Your task to perform on an android device: turn off translation in the chrome app Image 0: 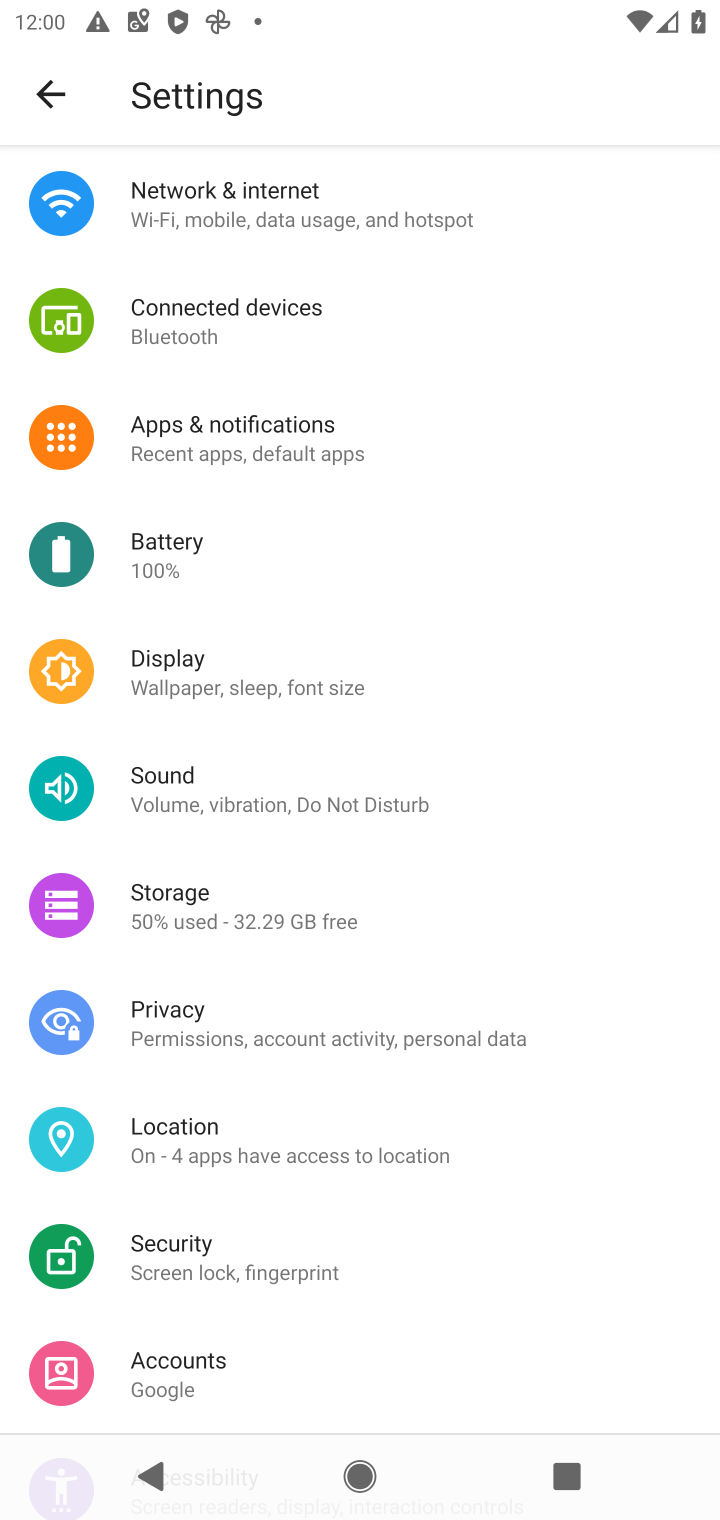
Step 0: press home button
Your task to perform on an android device: turn off translation in the chrome app Image 1: 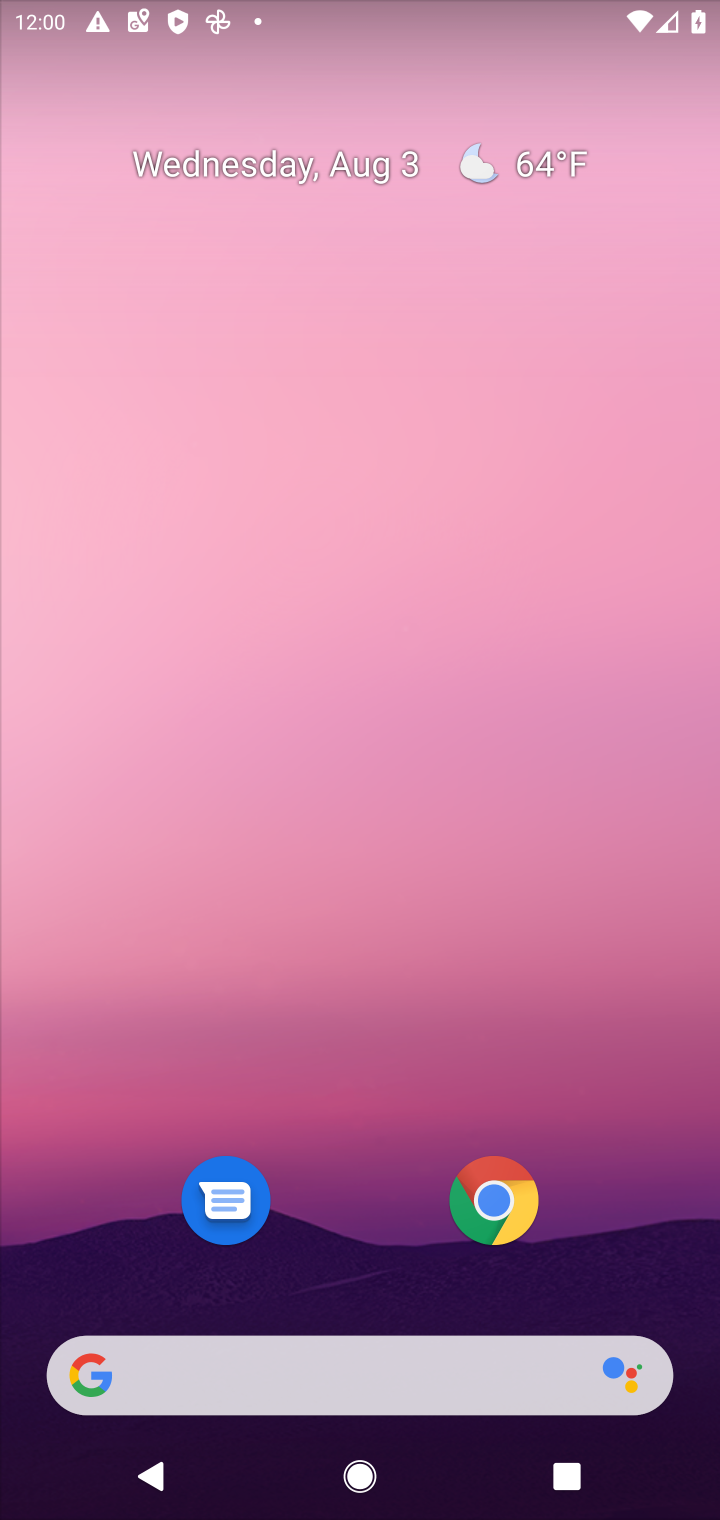
Step 1: click (499, 1206)
Your task to perform on an android device: turn off translation in the chrome app Image 2: 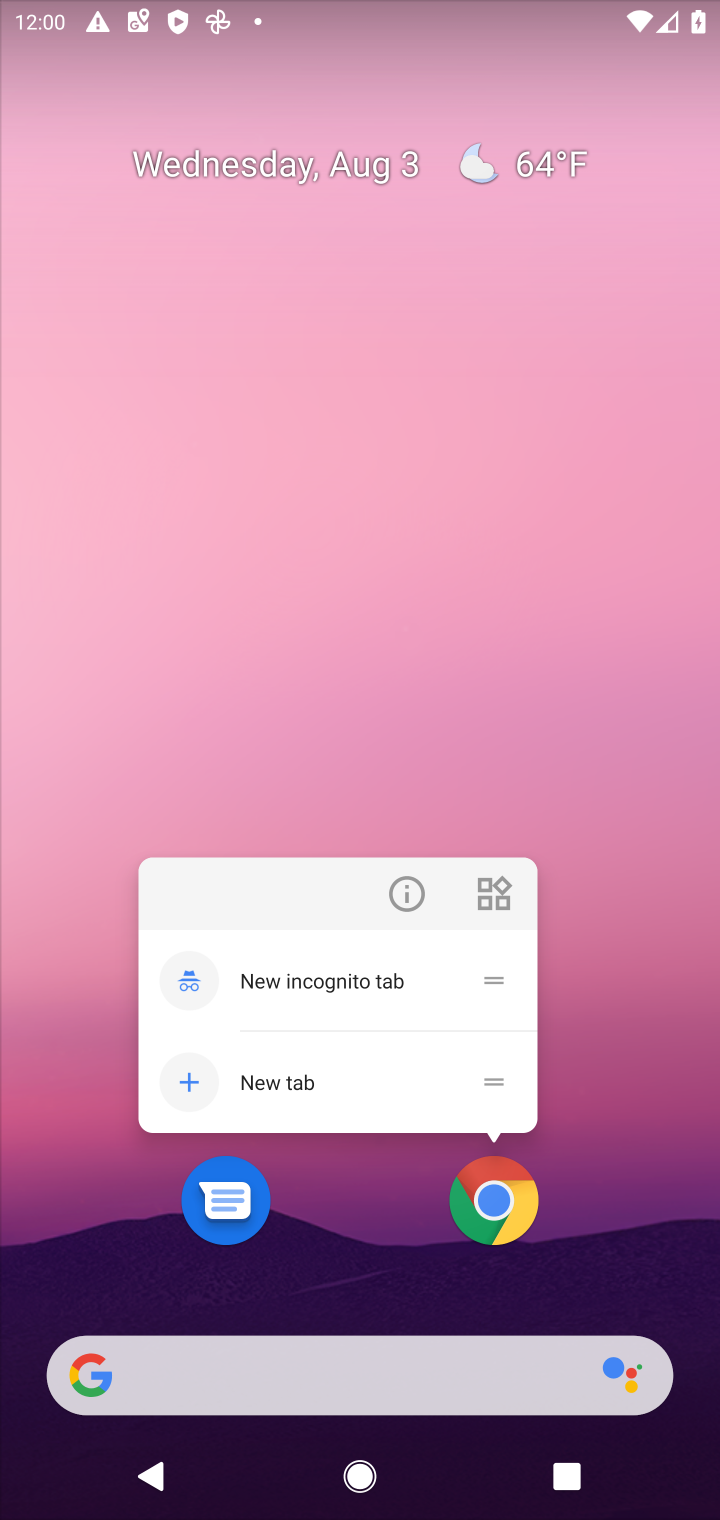
Step 2: click (486, 1200)
Your task to perform on an android device: turn off translation in the chrome app Image 3: 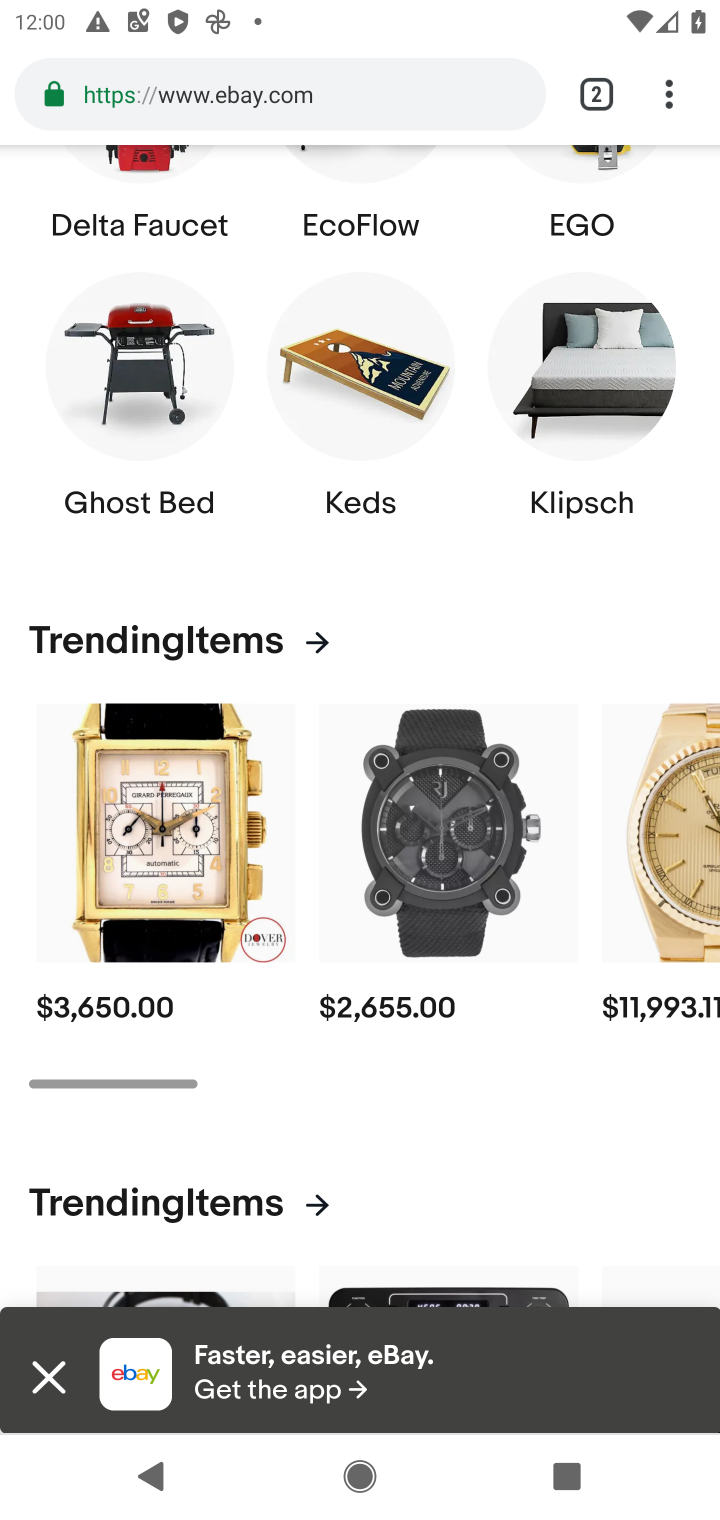
Step 3: click (666, 107)
Your task to perform on an android device: turn off translation in the chrome app Image 4: 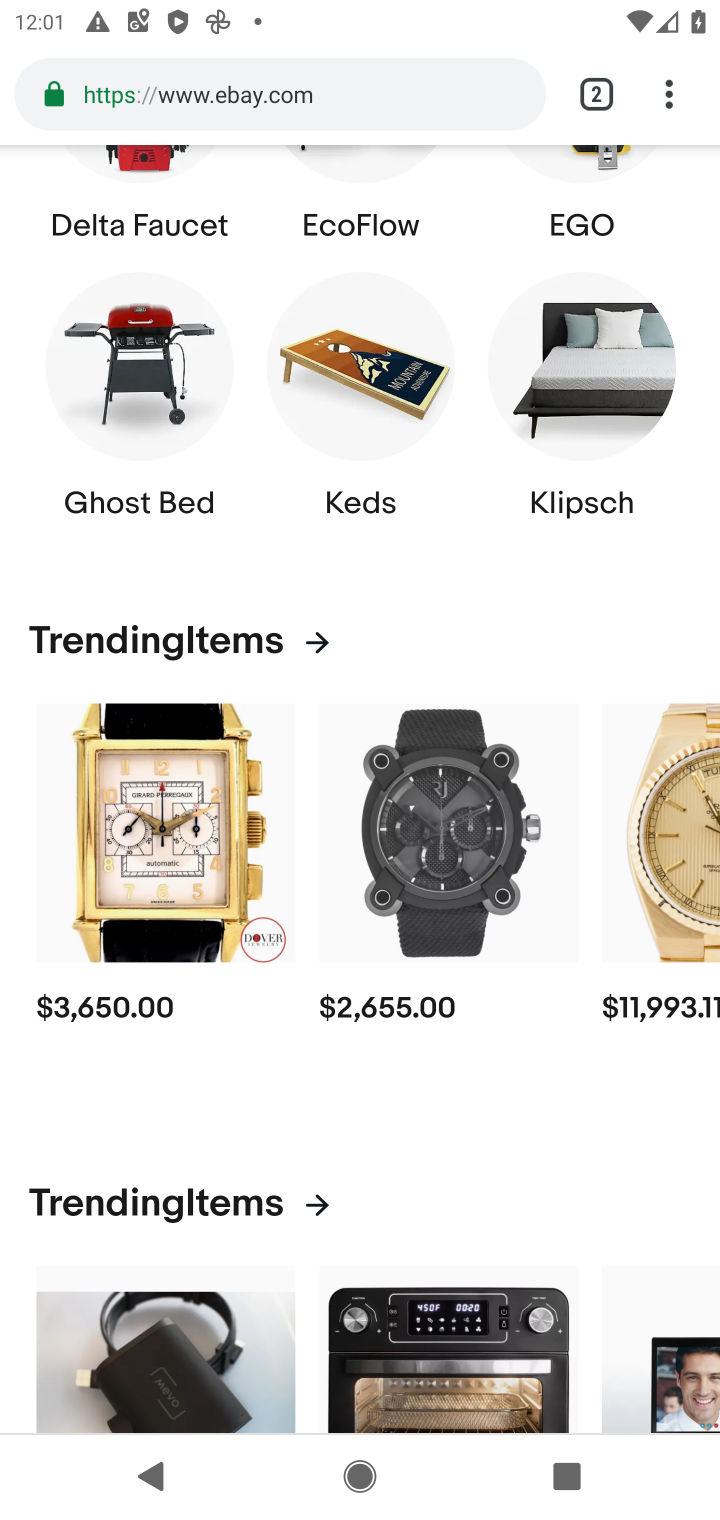
Step 4: click (666, 106)
Your task to perform on an android device: turn off translation in the chrome app Image 5: 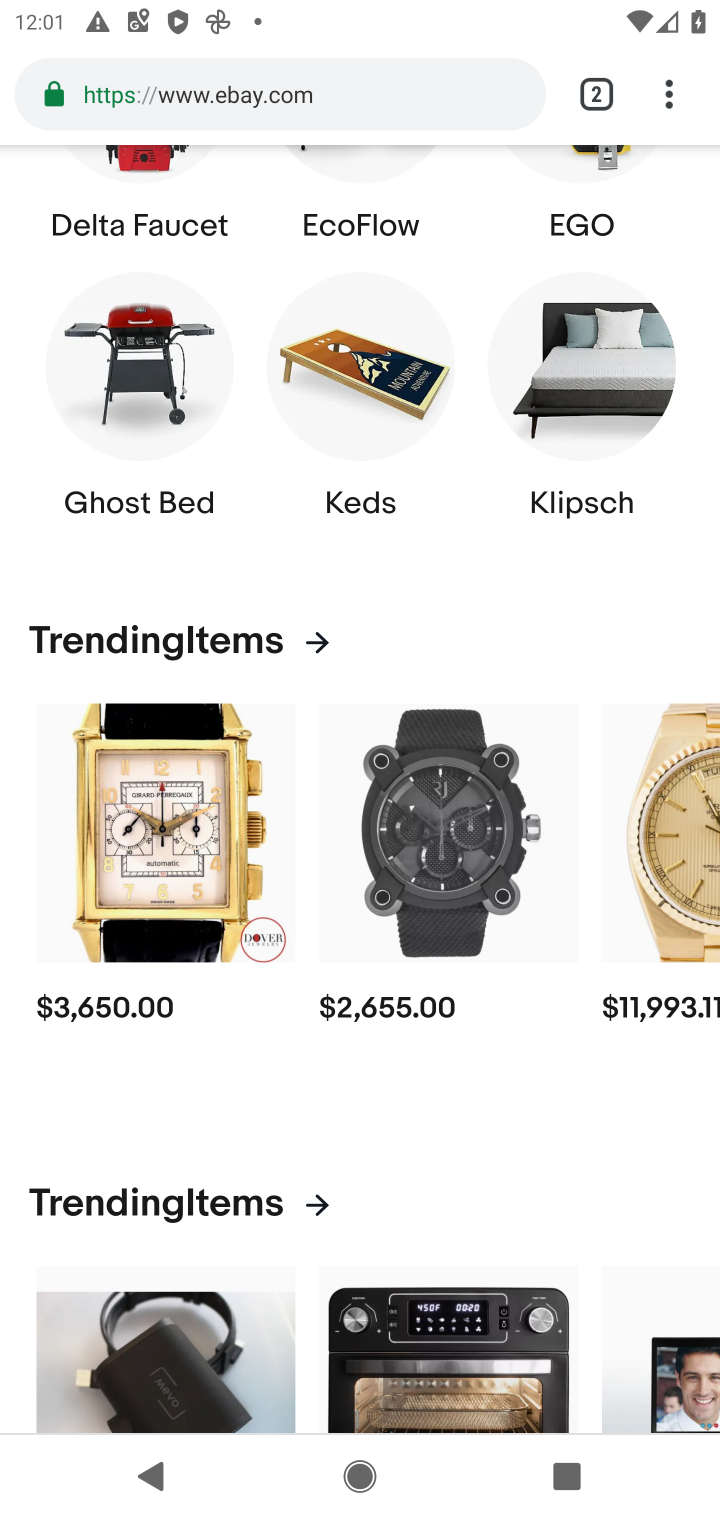
Step 5: click (668, 100)
Your task to perform on an android device: turn off translation in the chrome app Image 6: 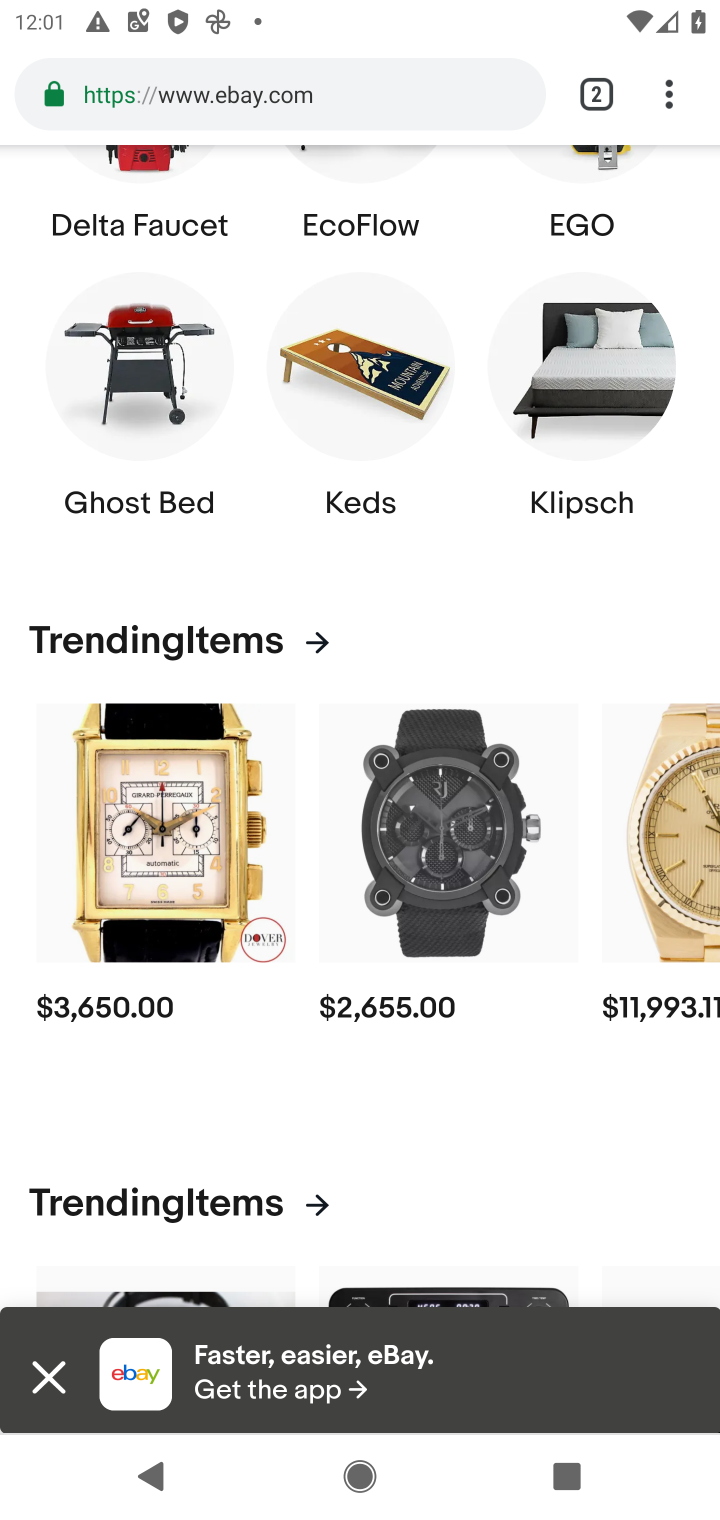
Step 6: click (664, 106)
Your task to perform on an android device: turn off translation in the chrome app Image 7: 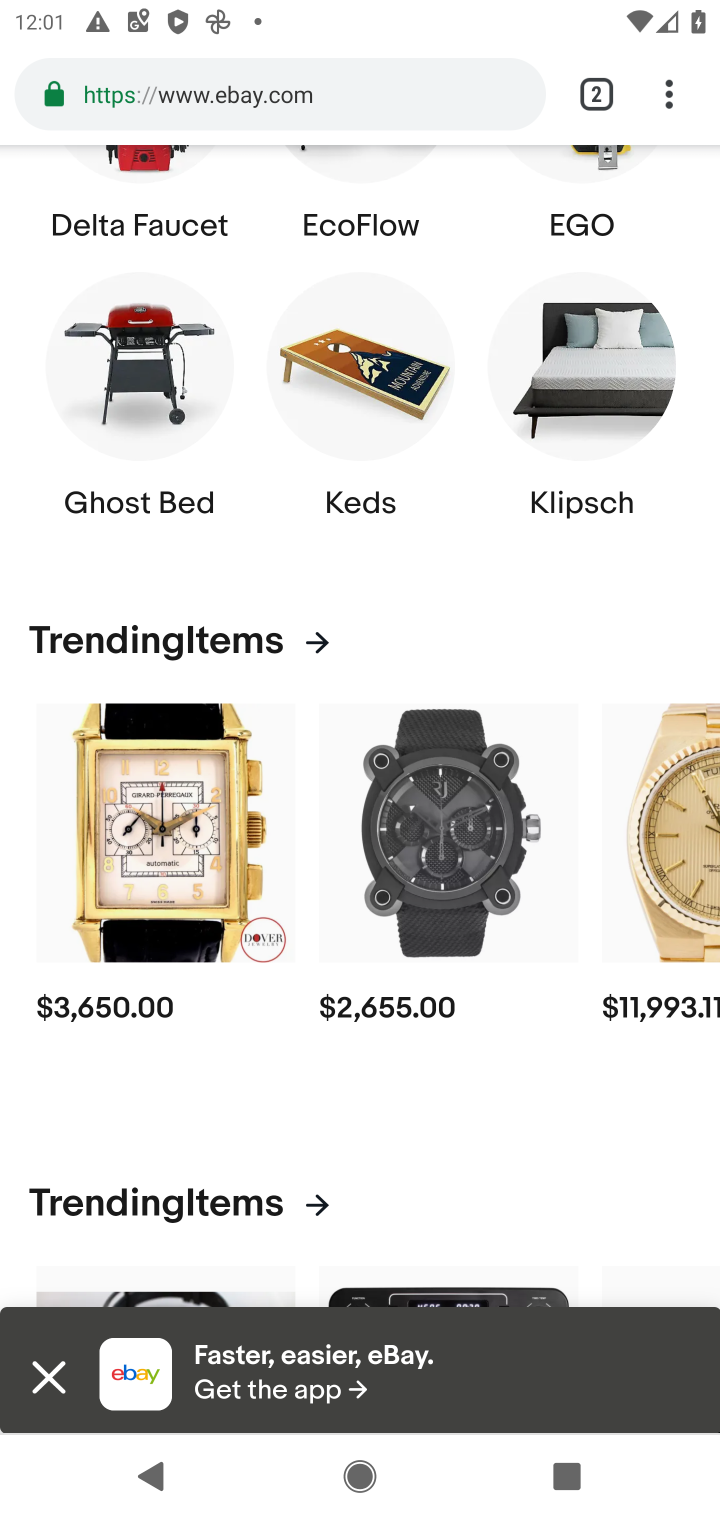
Step 7: click (663, 100)
Your task to perform on an android device: turn off translation in the chrome app Image 8: 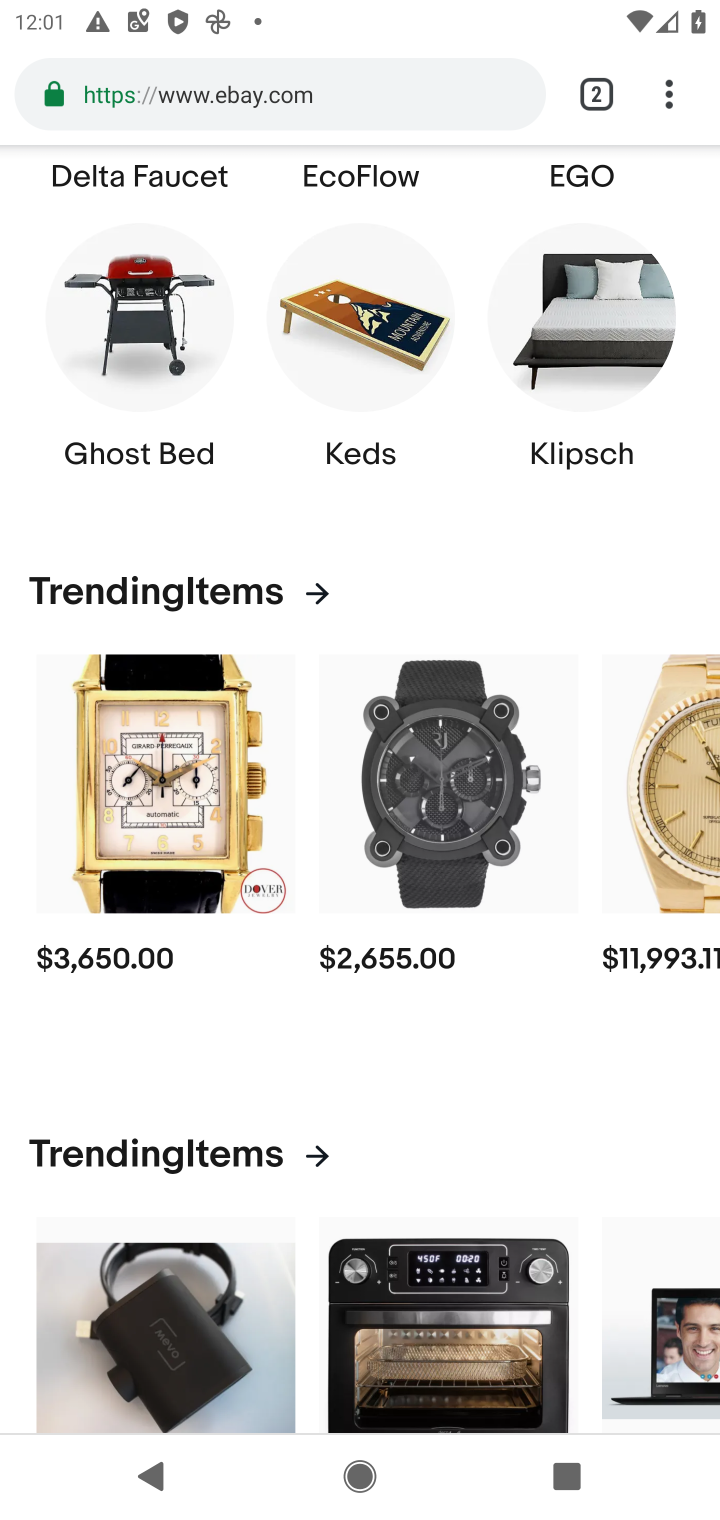
Step 8: click (670, 104)
Your task to perform on an android device: turn off translation in the chrome app Image 9: 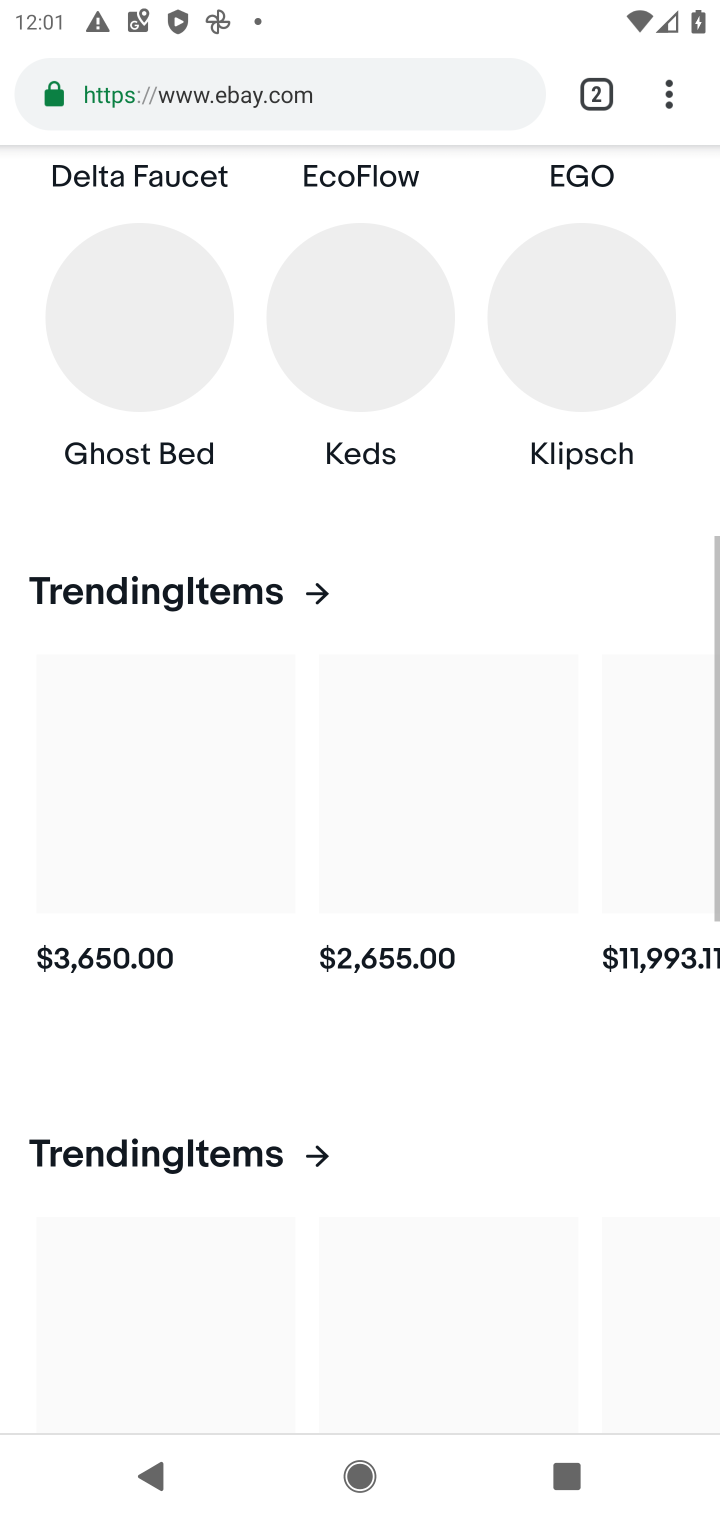
Step 9: click (670, 104)
Your task to perform on an android device: turn off translation in the chrome app Image 10: 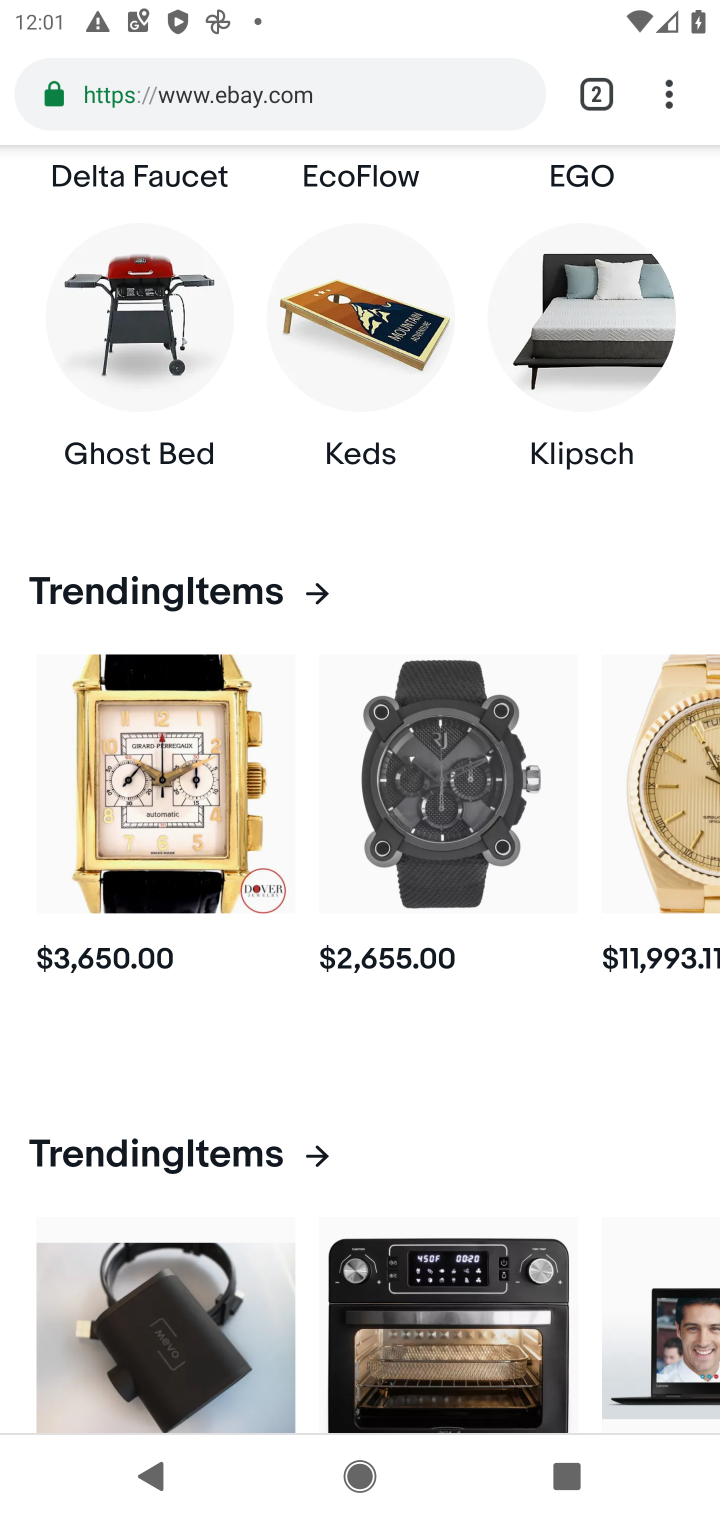
Step 10: click (666, 111)
Your task to perform on an android device: turn off translation in the chrome app Image 11: 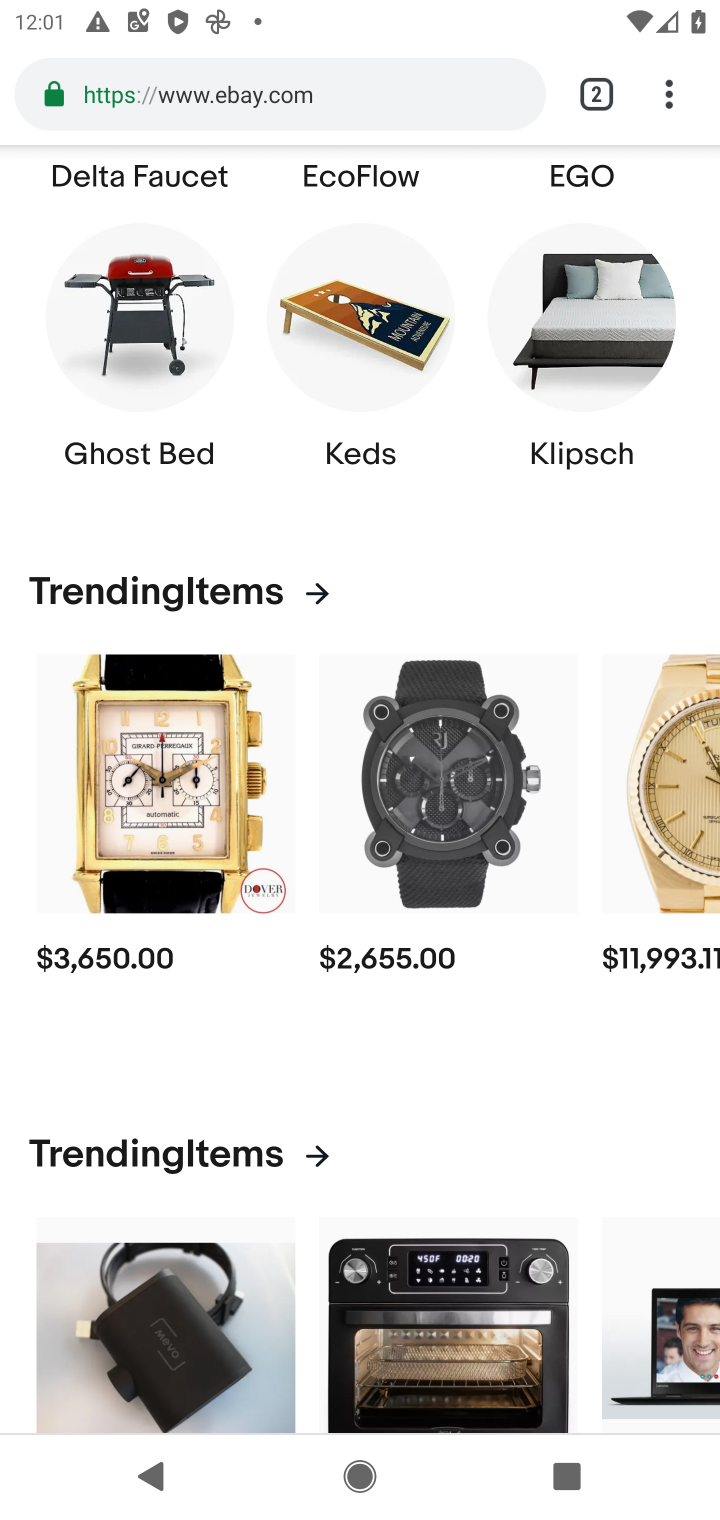
Step 11: click (663, 103)
Your task to perform on an android device: turn off translation in the chrome app Image 12: 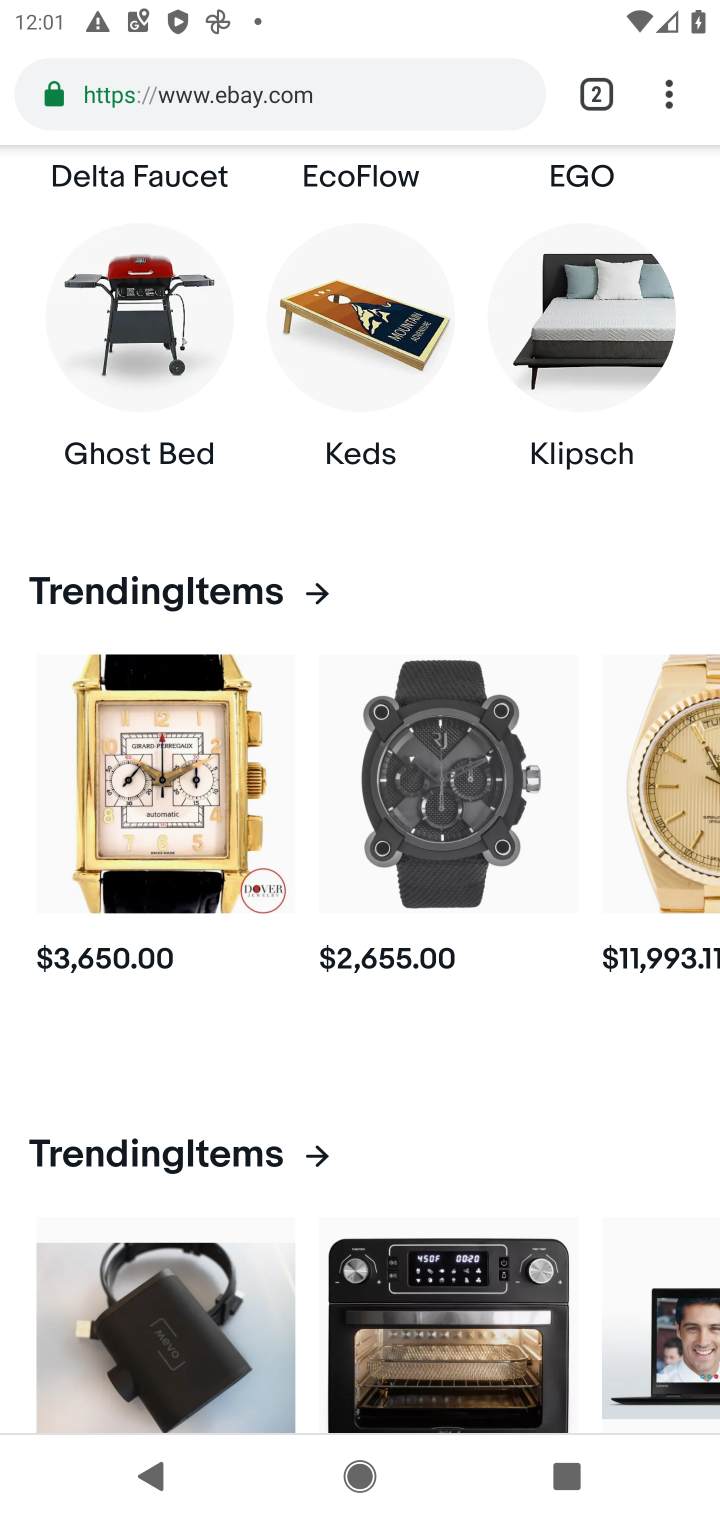
Step 12: click (671, 84)
Your task to perform on an android device: turn off translation in the chrome app Image 13: 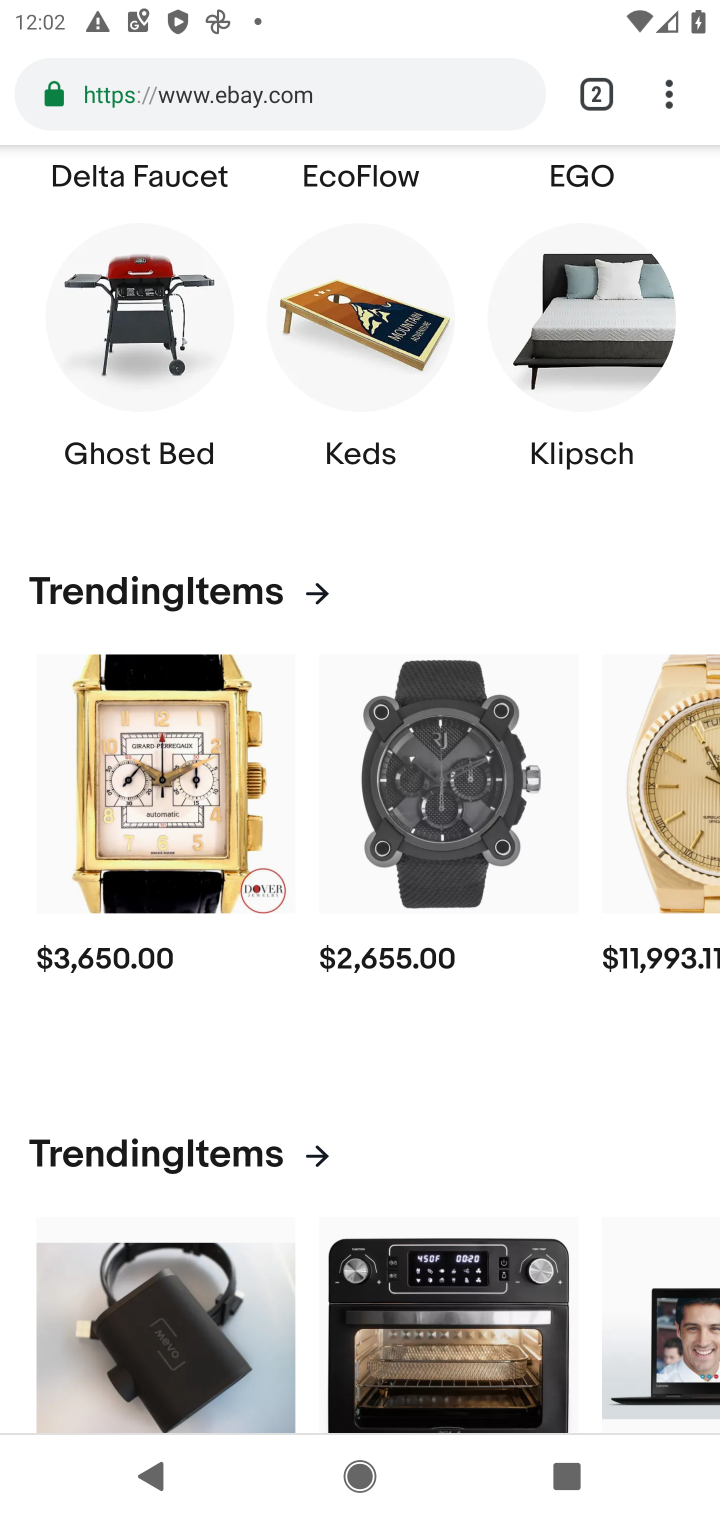
Step 13: click (670, 96)
Your task to perform on an android device: turn off translation in the chrome app Image 14: 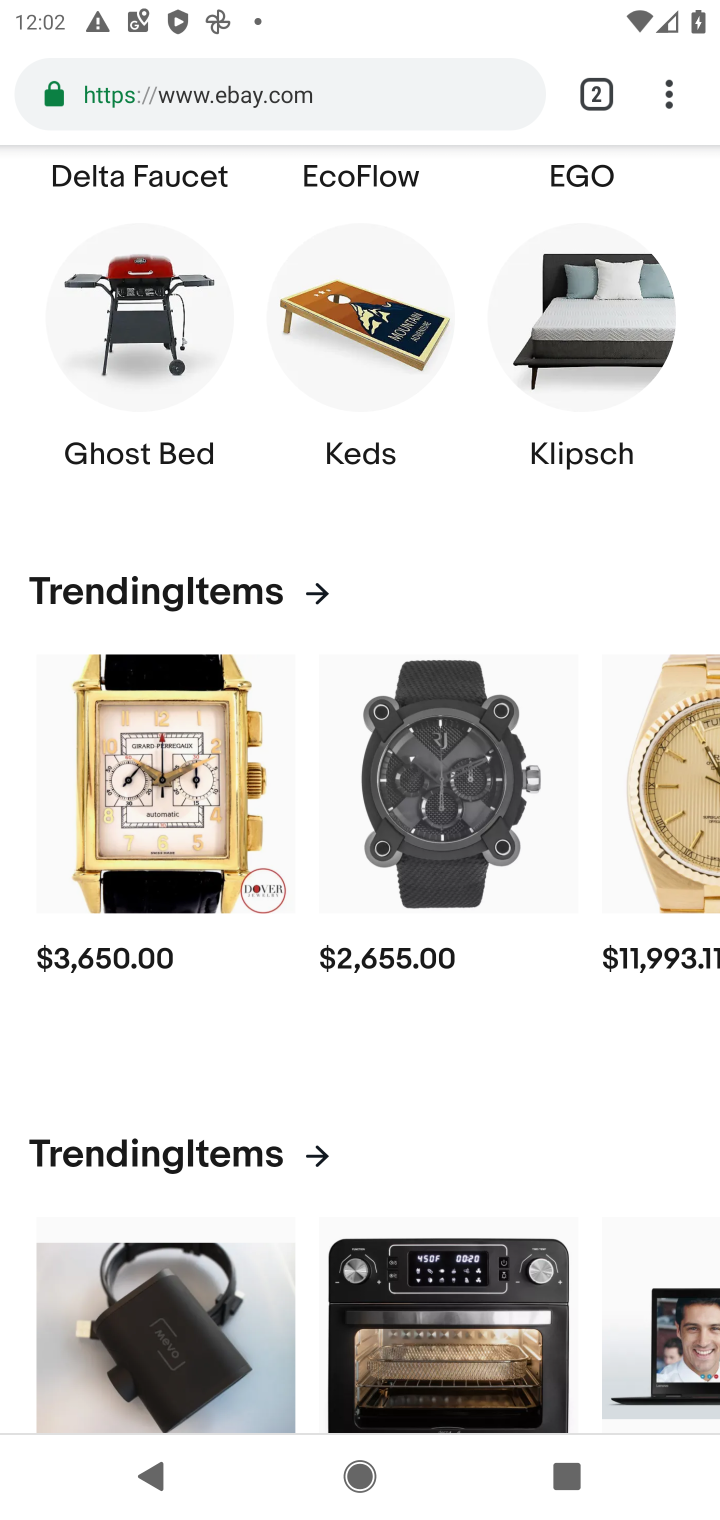
Step 14: click (670, 107)
Your task to perform on an android device: turn off translation in the chrome app Image 15: 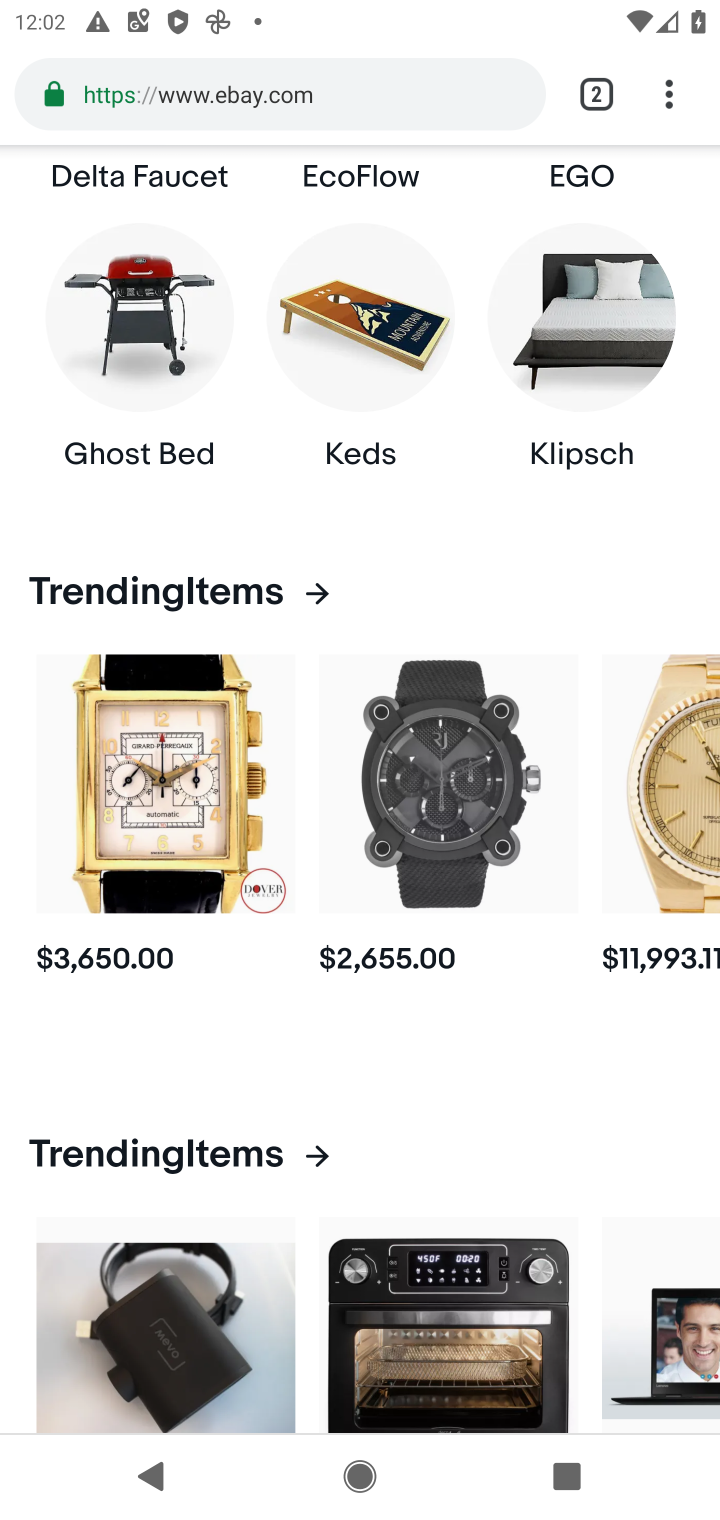
Step 15: click (670, 94)
Your task to perform on an android device: turn off translation in the chrome app Image 16: 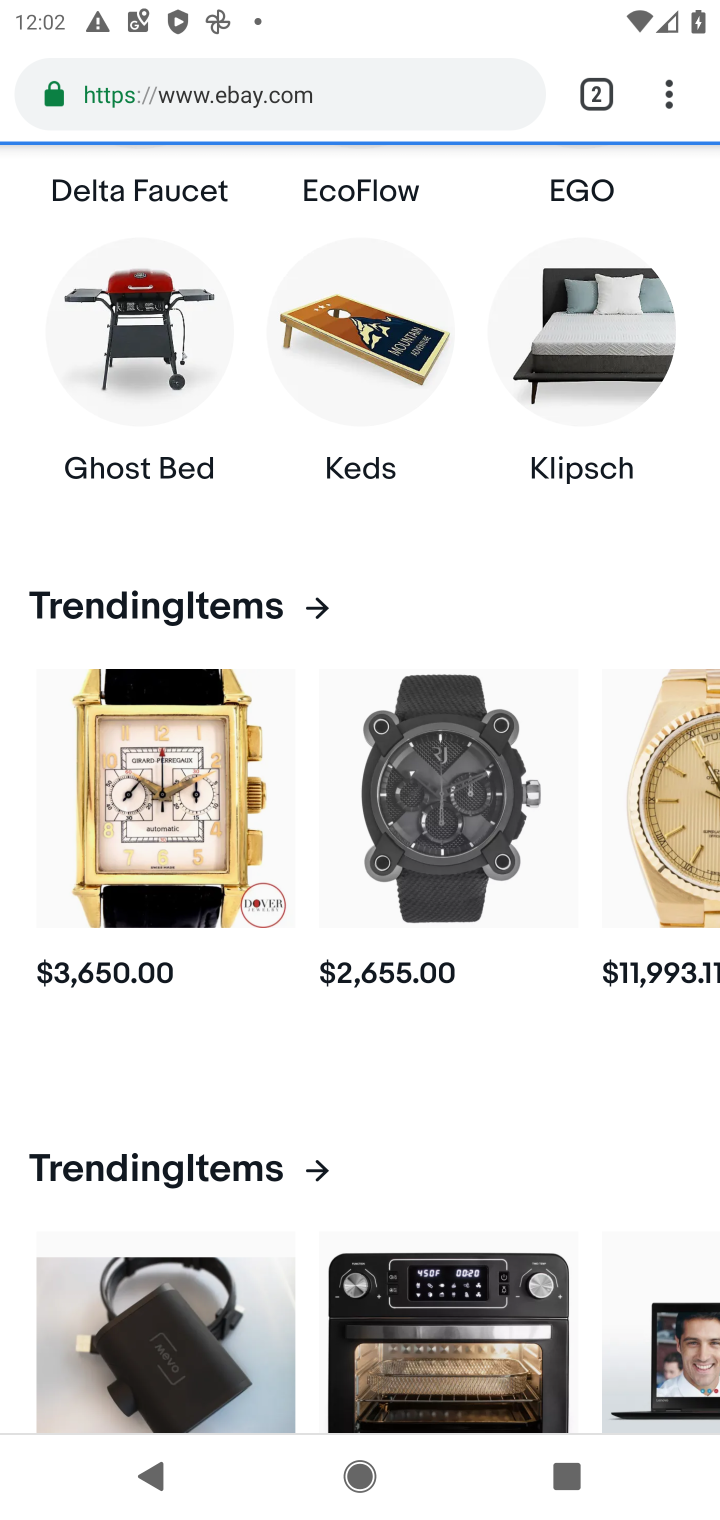
Step 16: click (665, 98)
Your task to perform on an android device: turn off translation in the chrome app Image 17: 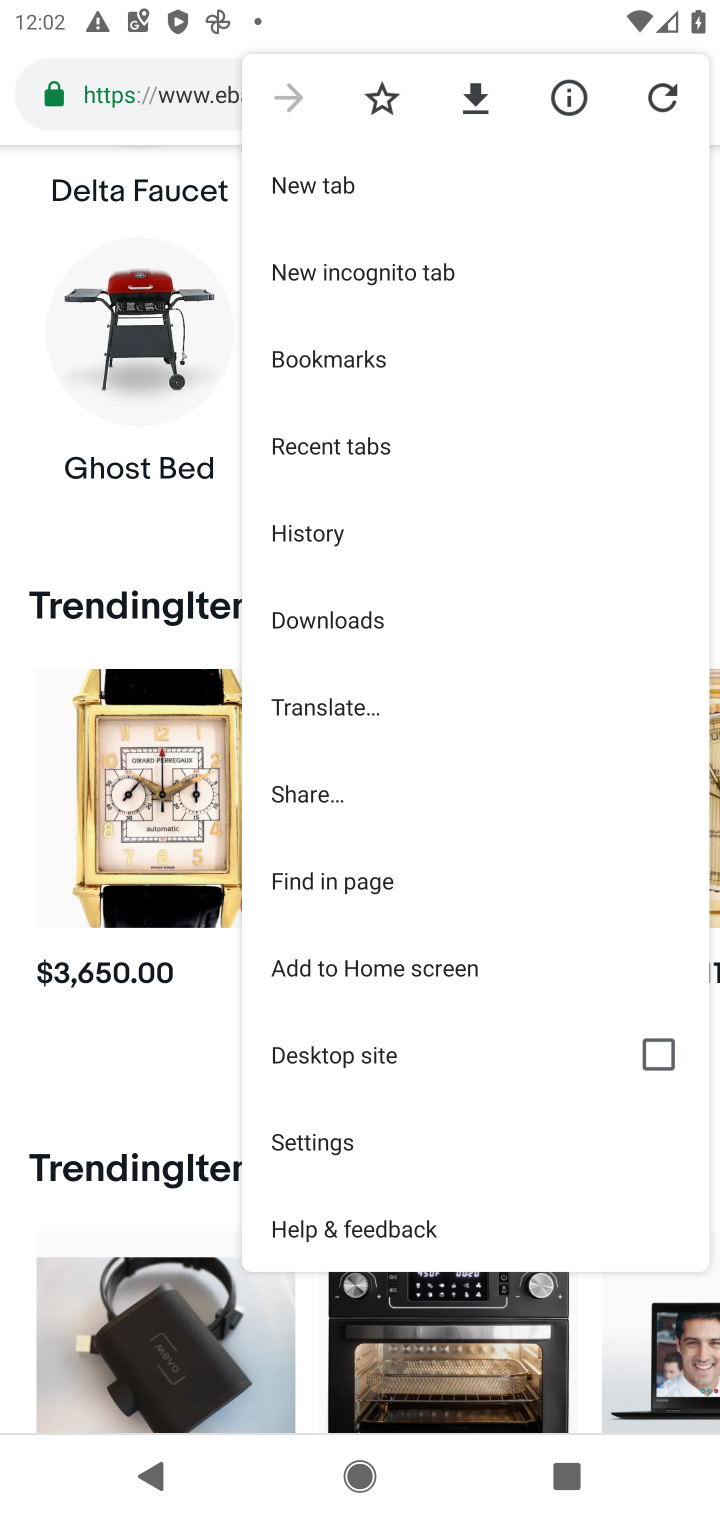
Step 17: task complete